Your task to perform on an android device: Show me the alarms in the clock app Image 0: 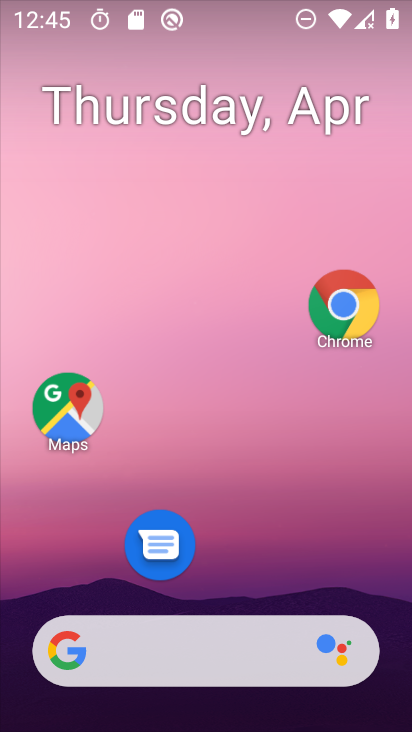
Step 0: drag from (268, 516) to (301, 110)
Your task to perform on an android device: Show me the alarms in the clock app Image 1: 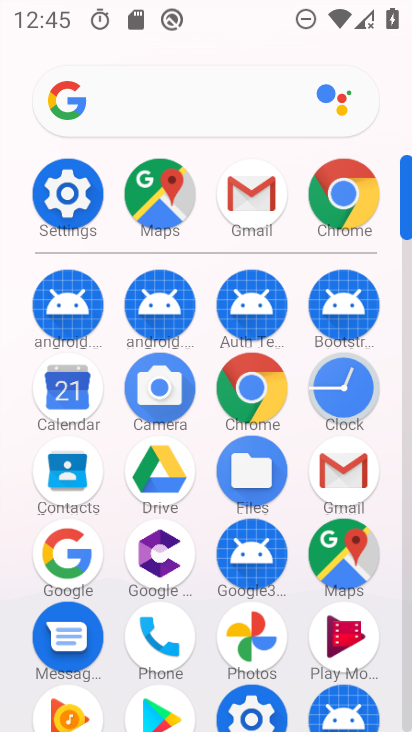
Step 1: click (344, 399)
Your task to perform on an android device: Show me the alarms in the clock app Image 2: 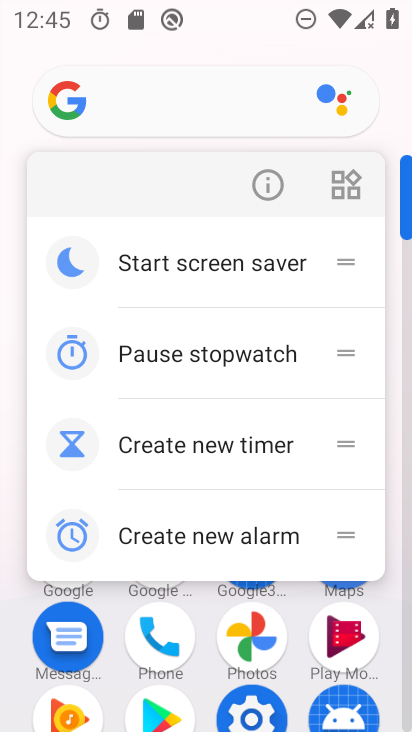
Step 2: click (394, 450)
Your task to perform on an android device: Show me the alarms in the clock app Image 3: 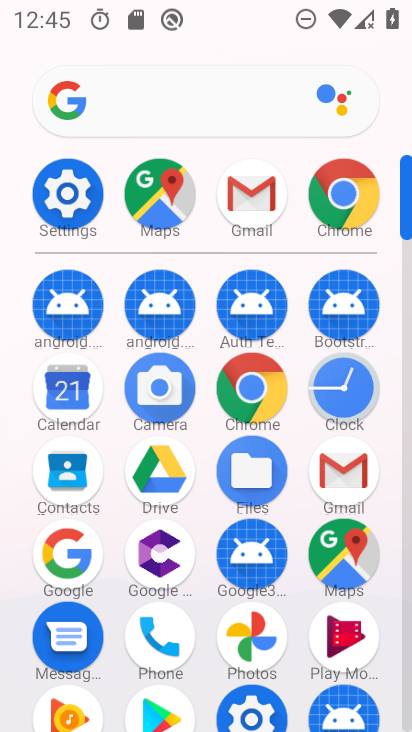
Step 3: click (346, 403)
Your task to perform on an android device: Show me the alarms in the clock app Image 4: 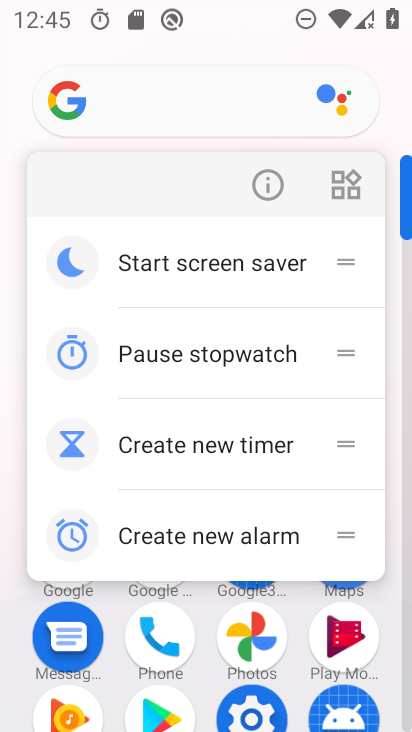
Step 4: click (390, 430)
Your task to perform on an android device: Show me the alarms in the clock app Image 5: 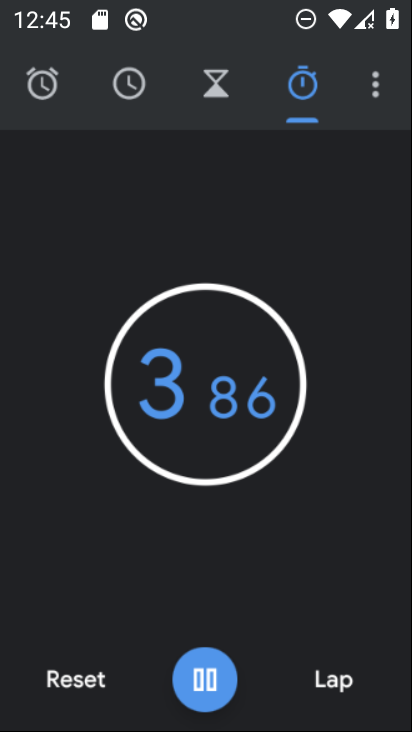
Step 5: click (351, 394)
Your task to perform on an android device: Show me the alarms in the clock app Image 6: 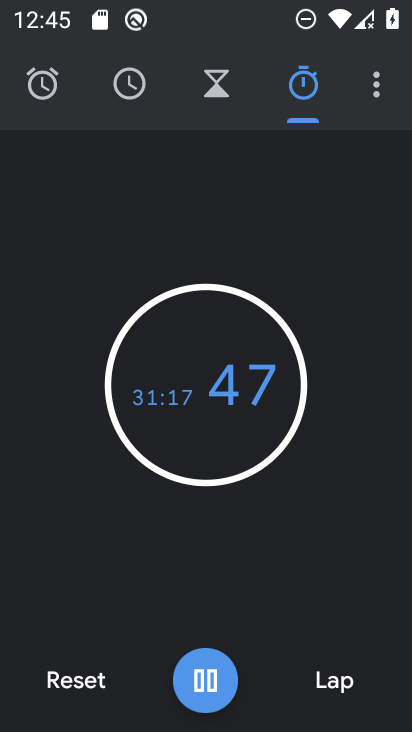
Step 6: click (42, 95)
Your task to perform on an android device: Show me the alarms in the clock app Image 7: 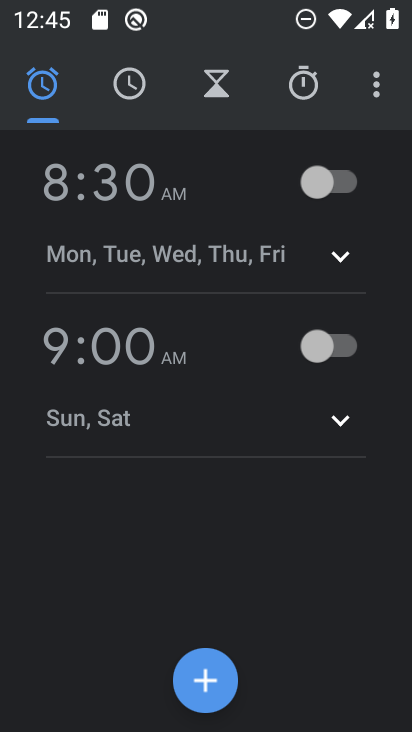
Step 7: task complete